Your task to perform on an android device: Open Youtube and go to the subscriptions tab Image 0: 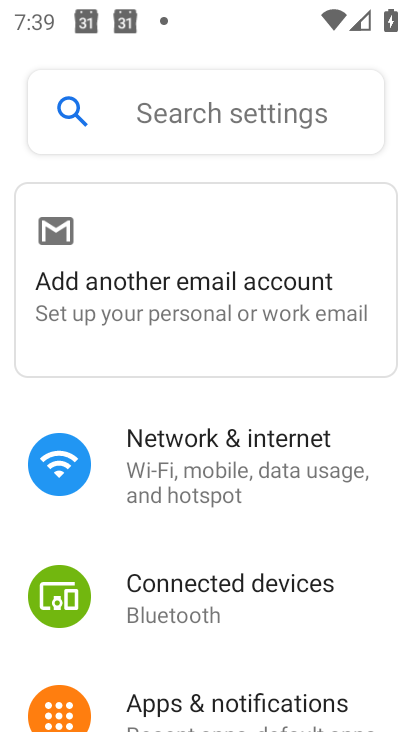
Step 0: press home button
Your task to perform on an android device: Open Youtube and go to the subscriptions tab Image 1: 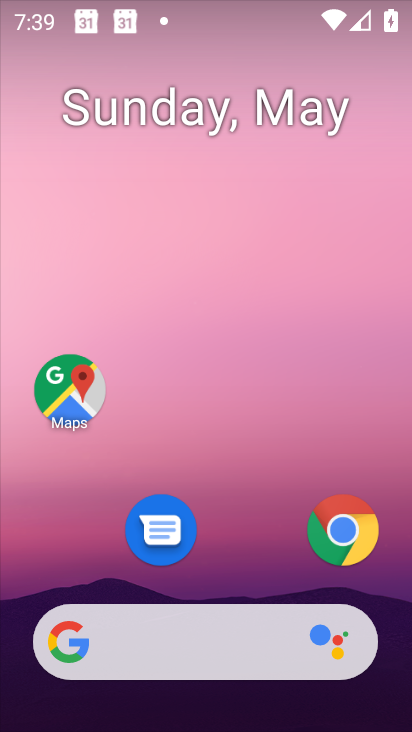
Step 1: drag from (242, 578) to (241, 10)
Your task to perform on an android device: Open Youtube and go to the subscriptions tab Image 2: 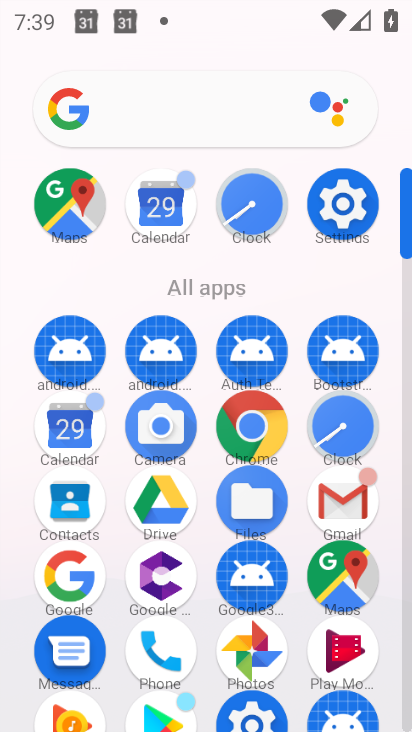
Step 2: drag from (199, 618) to (202, 130)
Your task to perform on an android device: Open Youtube and go to the subscriptions tab Image 3: 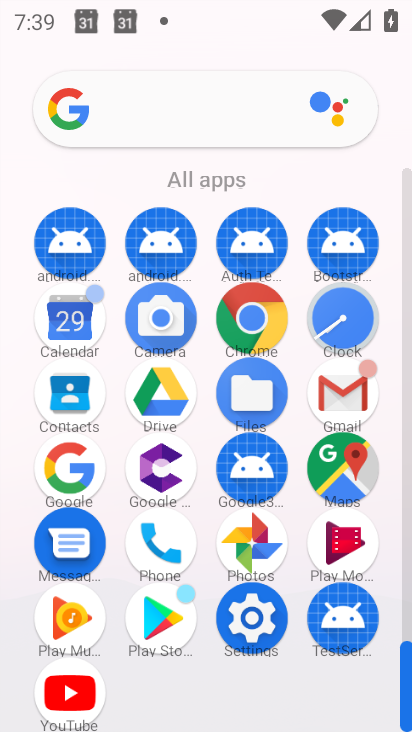
Step 3: click (76, 694)
Your task to perform on an android device: Open Youtube and go to the subscriptions tab Image 4: 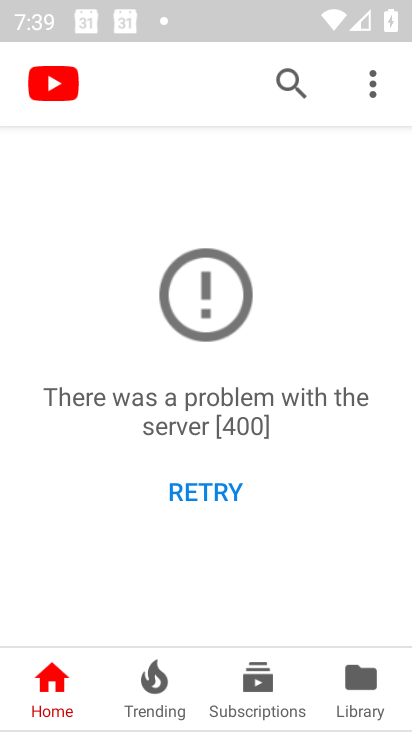
Step 4: click (268, 678)
Your task to perform on an android device: Open Youtube and go to the subscriptions tab Image 5: 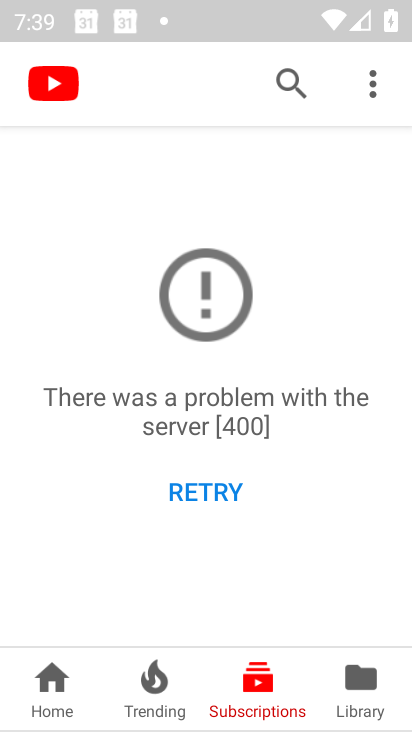
Step 5: task complete